Your task to perform on an android device: change the clock style Image 0: 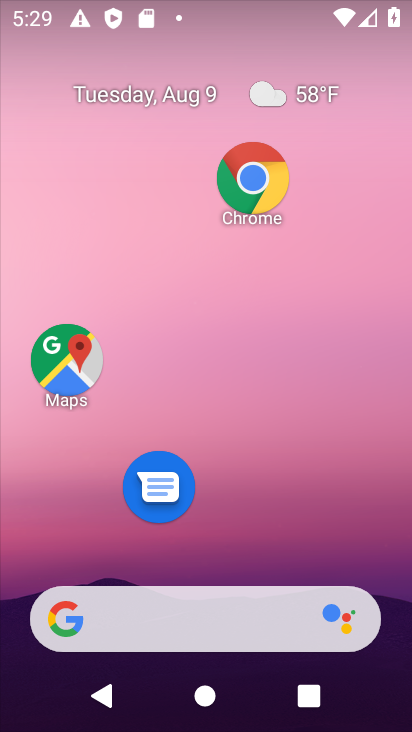
Step 0: drag from (231, 560) to (9, 482)
Your task to perform on an android device: change the clock style Image 1: 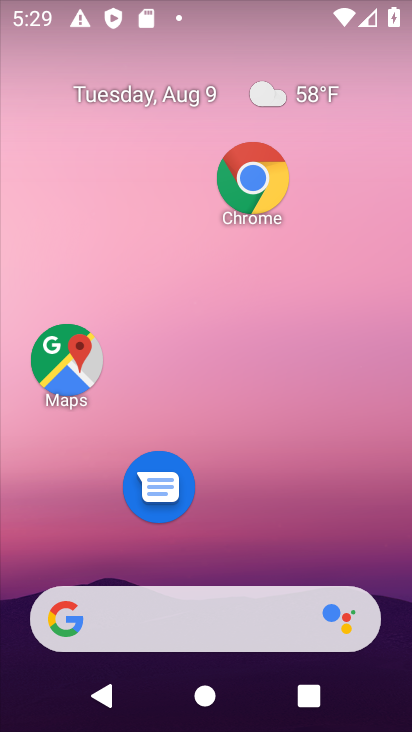
Step 1: drag from (230, 556) to (85, 6)
Your task to perform on an android device: change the clock style Image 2: 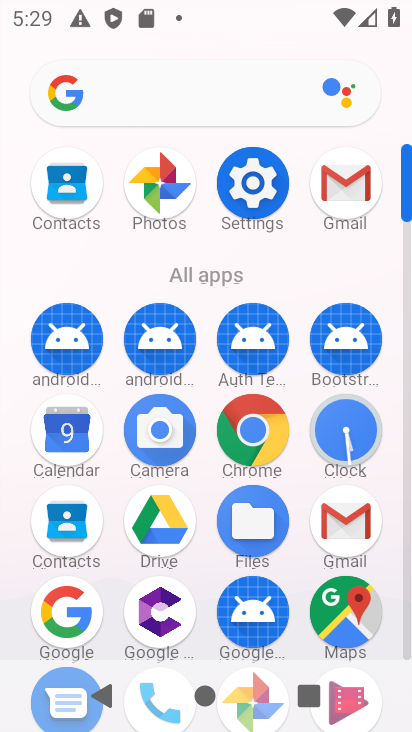
Step 2: click (331, 448)
Your task to perform on an android device: change the clock style Image 3: 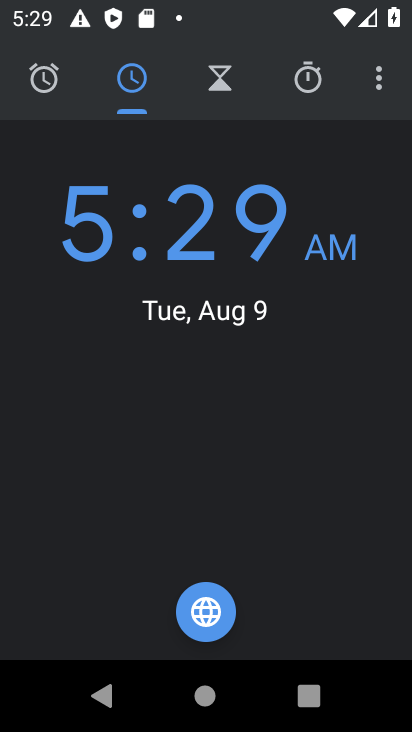
Step 3: click (380, 92)
Your task to perform on an android device: change the clock style Image 4: 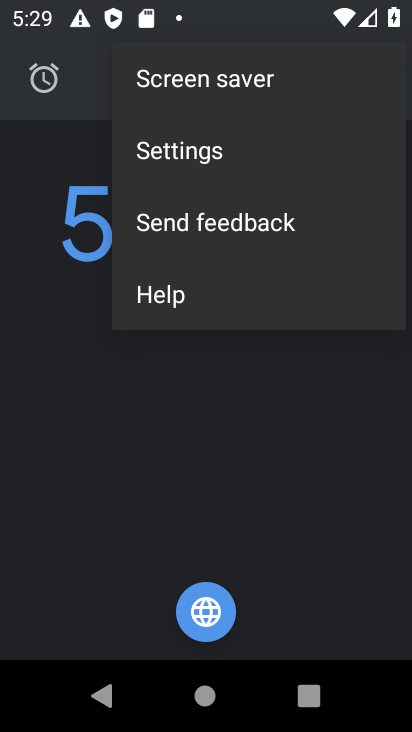
Step 4: click (224, 161)
Your task to perform on an android device: change the clock style Image 5: 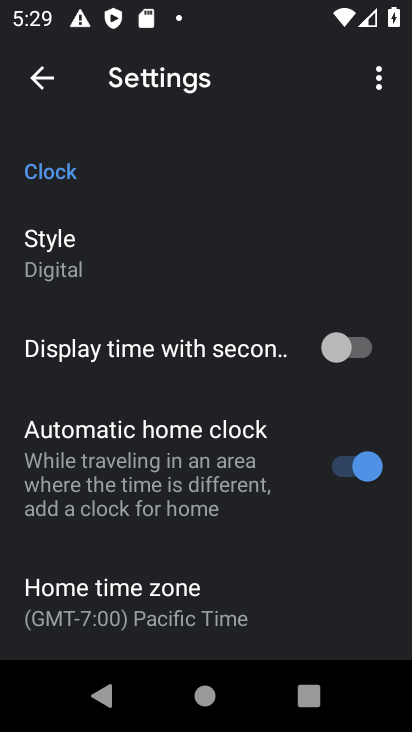
Step 5: click (97, 249)
Your task to perform on an android device: change the clock style Image 6: 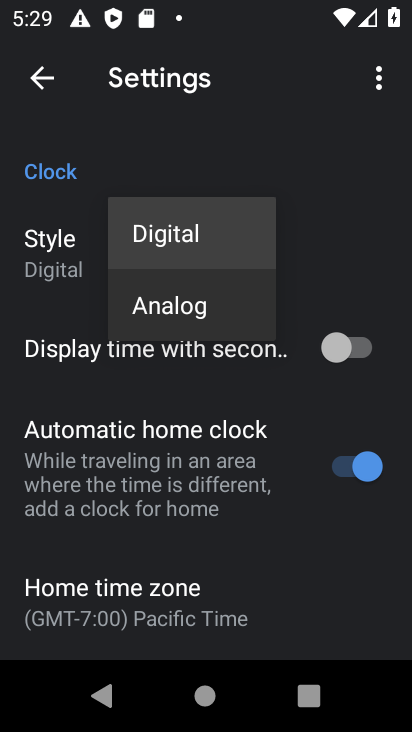
Step 6: click (142, 297)
Your task to perform on an android device: change the clock style Image 7: 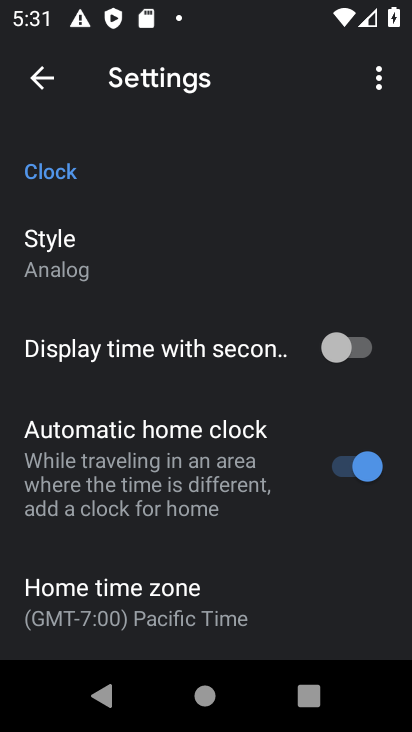
Step 7: task complete